Your task to perform on an android device: Go to sound settings Image 0: 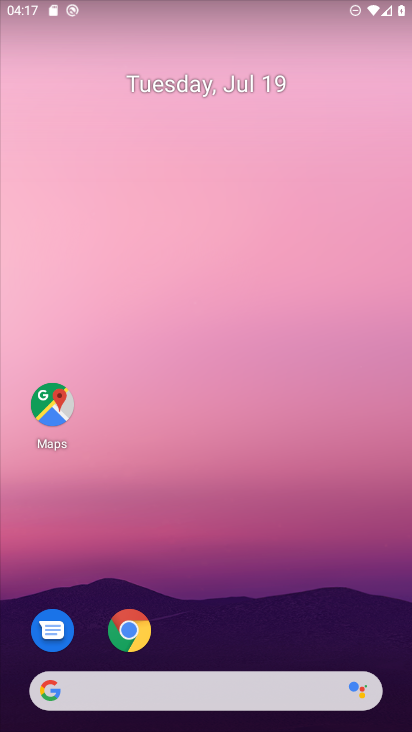
Step 0: drag from (188, 455) to (176, 124)
Your task to perform on an android device: Go to sound settings Image 1: 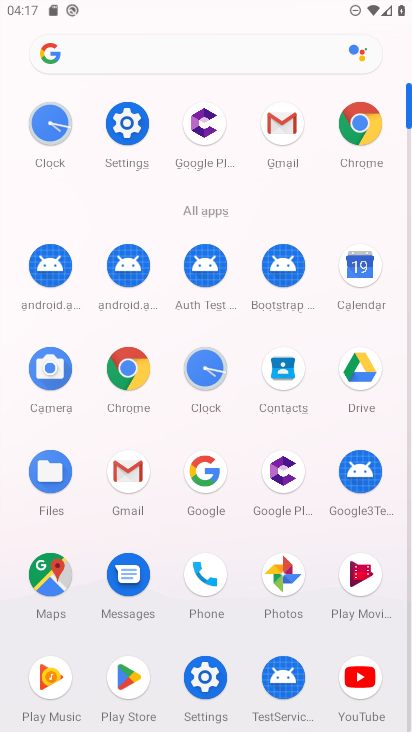
Step 1: drag from (201, 301) to (191, 235)
Your task to perform on an android device: Go to sound settings Image 2: 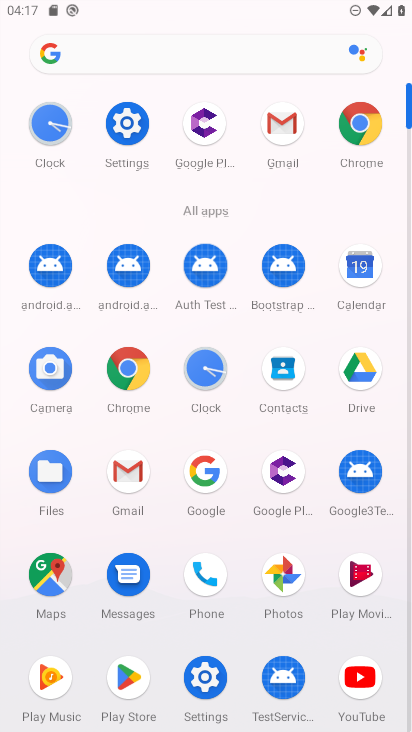
Step 2: click (209, 682)
Your task to perform on an android device: Go to sound settings Image 3: 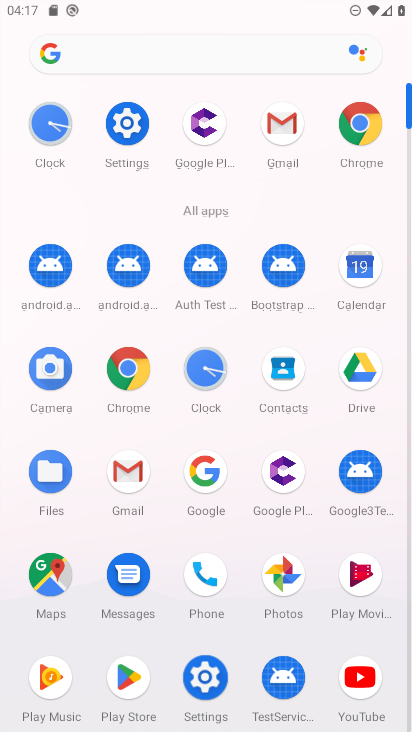
Step 3: click (213, 682)
Your task to perform on an android device: Go to sound settings Image 4: 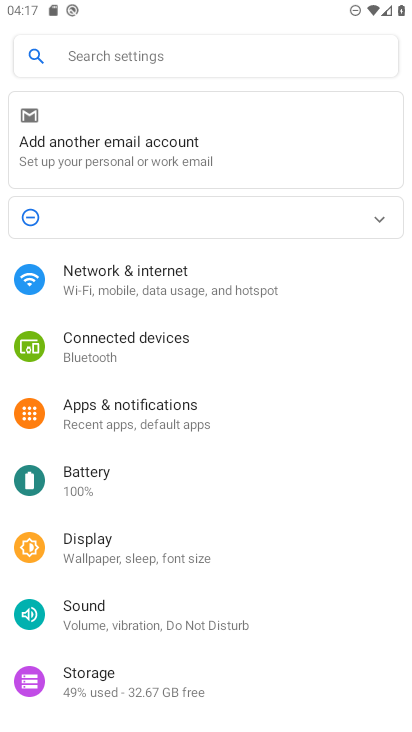
Step 4: click (107, 620)
Your task to perform on an android device: Go to sound settings Image 5: 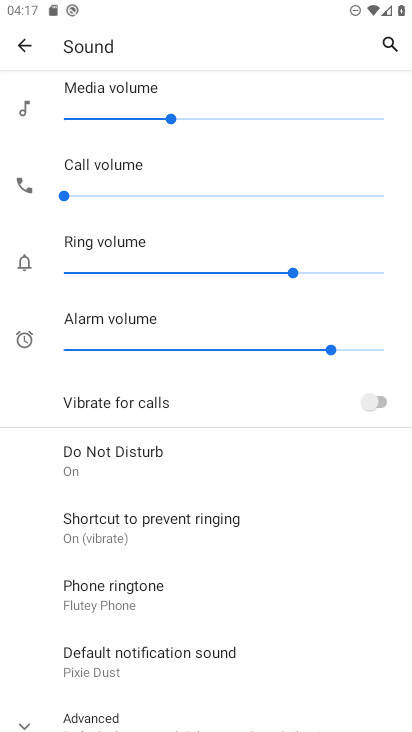
Step 5: task complete